Your task to perform on an android device: check google app version Image 0: 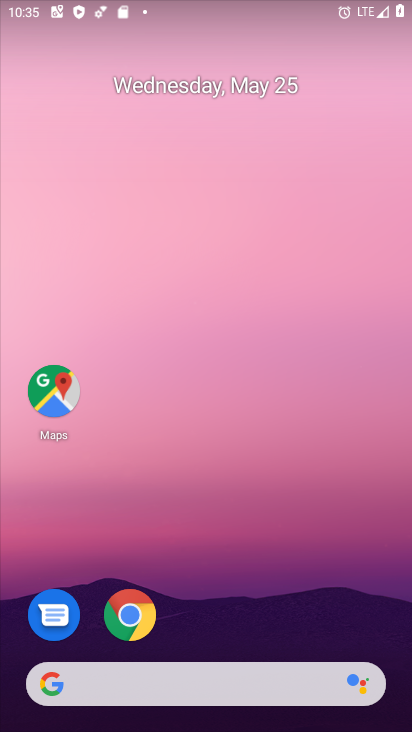
Step 0: click (140, 695)
Your task to perform on an android device: check google app version Image 1: 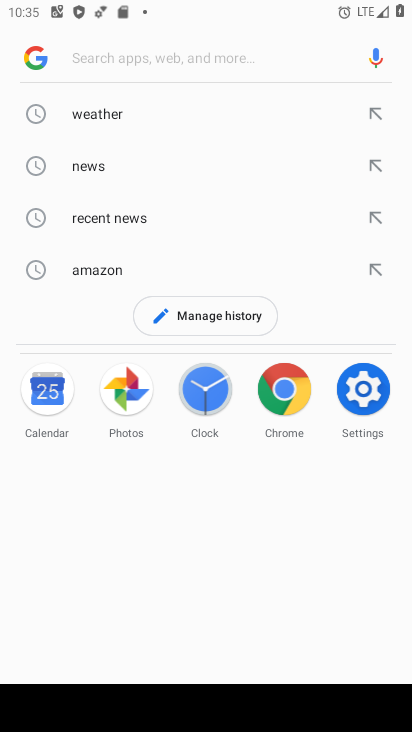
Step 1: click (30, 56)
Your task to perform on an android device: check google app version Image 2: 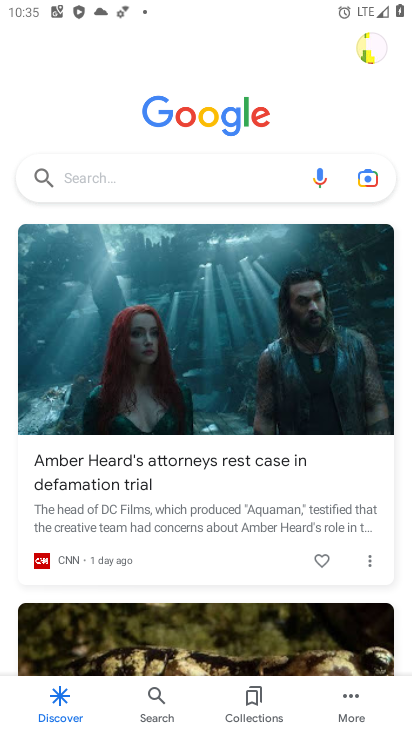
Step 2: click (354, 695)
Your task to perform on an android device: check google app version Image 3: 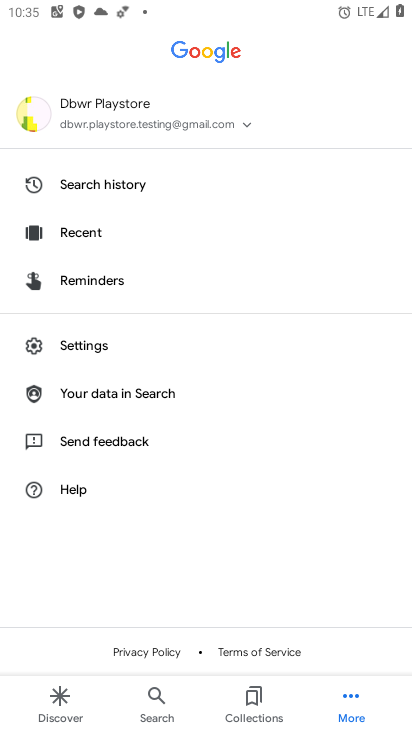
Step 3: click (119, 341)
Your task to perform on an android device: check google app version Image 4: 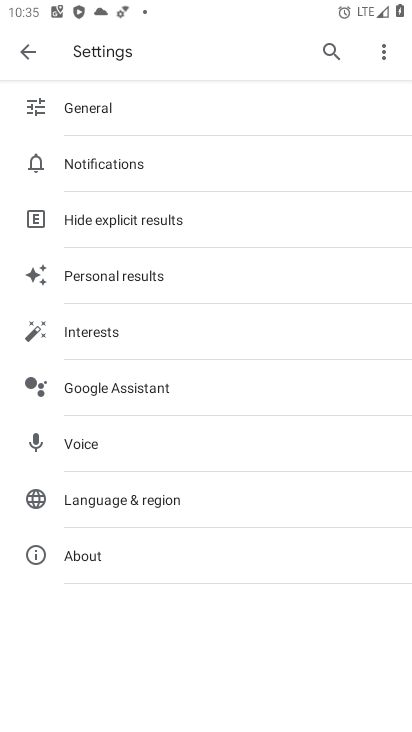
Step 4: click (86, 547)
Your task to perform on an android device: check google app version Image 5: 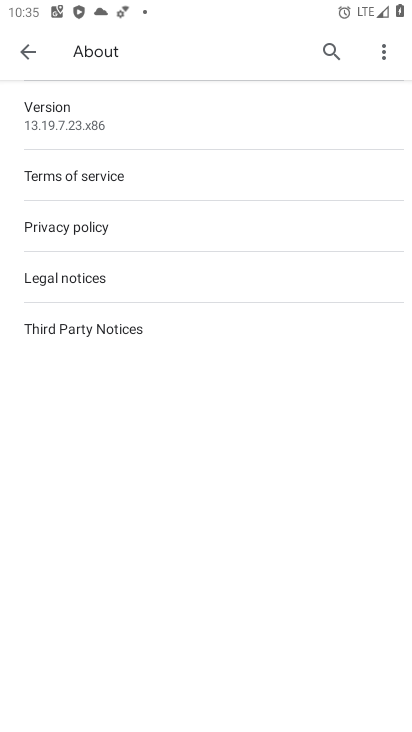
Step 5: task complete